Your task to perform on an android device: turn on showing notifications on the lock screen Image 0: 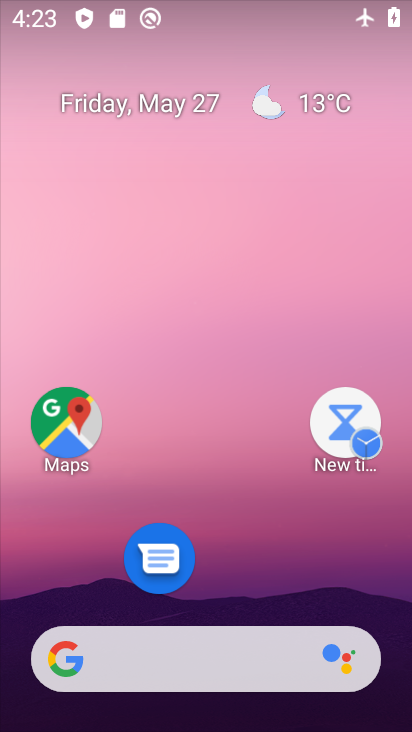
Step 0: drag from (285, 671) to (183, 167)
Your task to perform on an android device: turn on showing notifications on the lock screen Image 1: 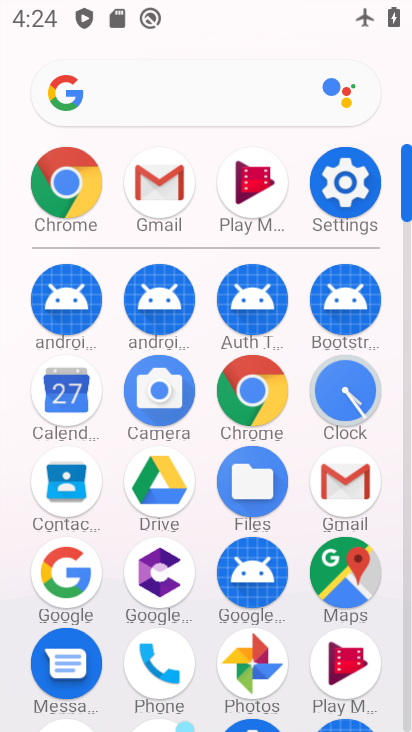
Step 1: click (364, 246)
Your task to perform on an android device: turn on showing notifications on the lock screen Image 2: 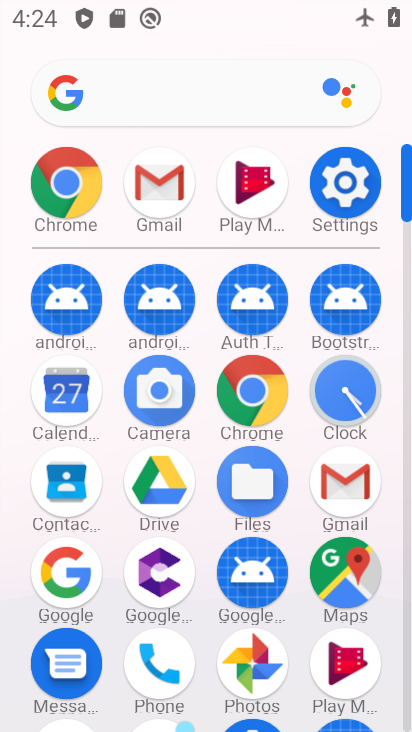
Step 2: click (344, 186)
Your task to perform on an android device: turn on showing notifications on the lock screen Image 3: 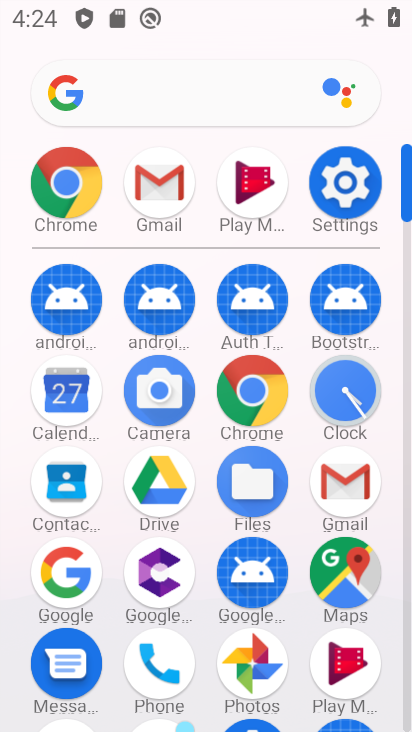
Step 3: click (344, 188)
Your task to perform on an android device: turn on showing notifications on the lock screen Image 4: 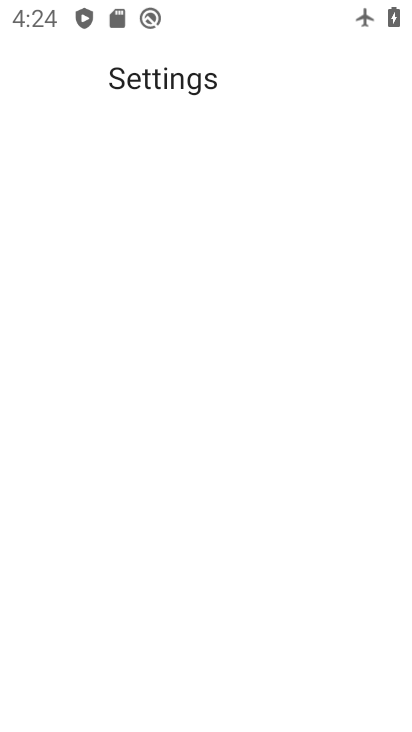
Step 4: click (347, 188)
Your task to perform on an android device: turn on showing notifications on the lock screen Image 5: 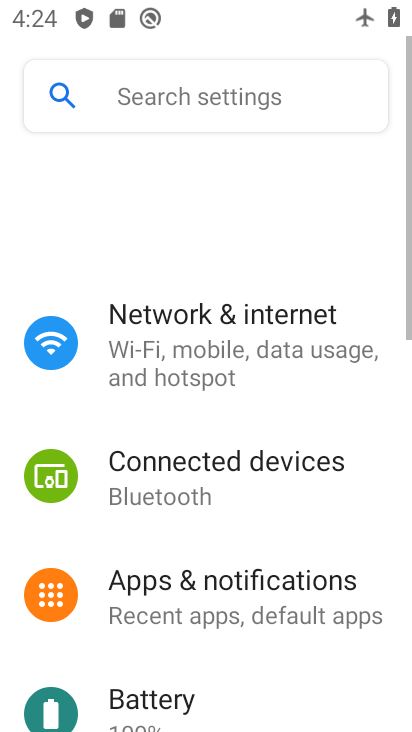
Step 5: click (347, 198)
Your task to perform on an android device: turn on showing notifications on the lock screen Image 6: 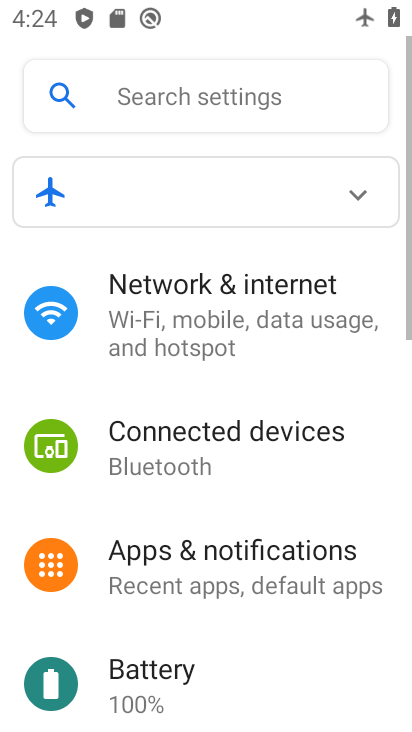
Step 6: click (348, 196)
Your task to perform on an android device: turn on showing notifications on the lock screen Image 7: 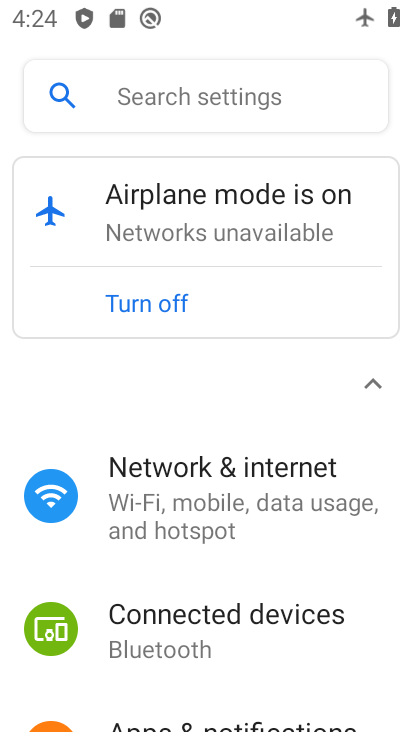
Step 7: drag from (175, 589) to (157, 264)
Your task to perform on an android device: turn on showing notifications on the lock screen Image 8: 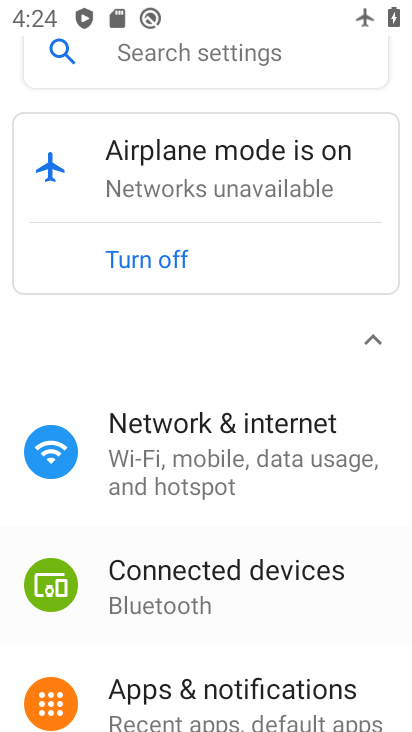
Step 8: drag from (249, 550) to (209, 270)
Your task to perform on an android device: turn on showing notifications on the lock screen Image 9: 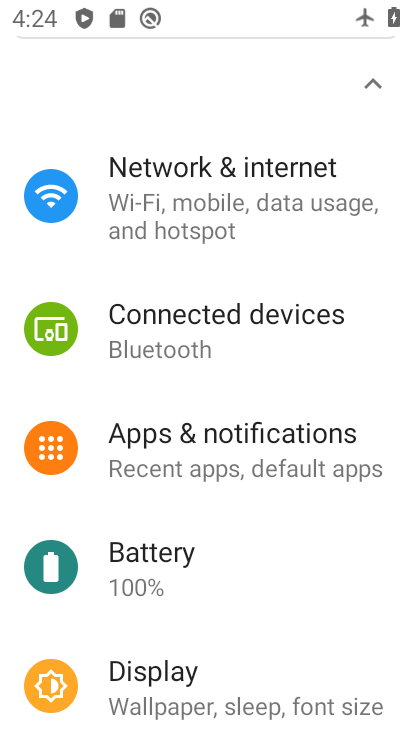
Step 9: click (189, 453)
Your task to perform on an android device: turn on showing notifications on the lock screen Image 10: 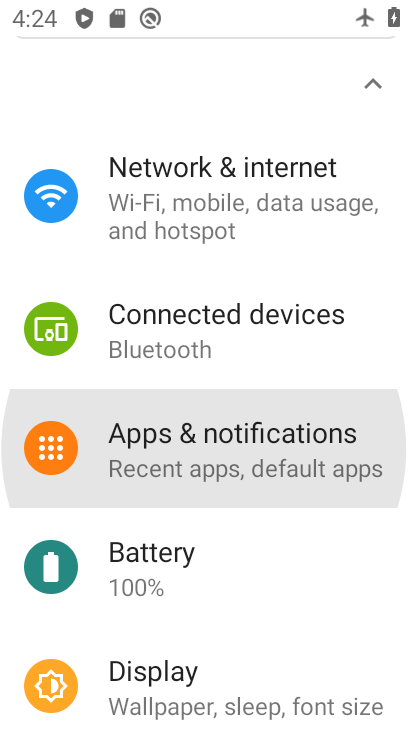
Step 10: click (189, 453)
Your task to perform on an android device: turn on showing notifications on the lock screen Image 11: 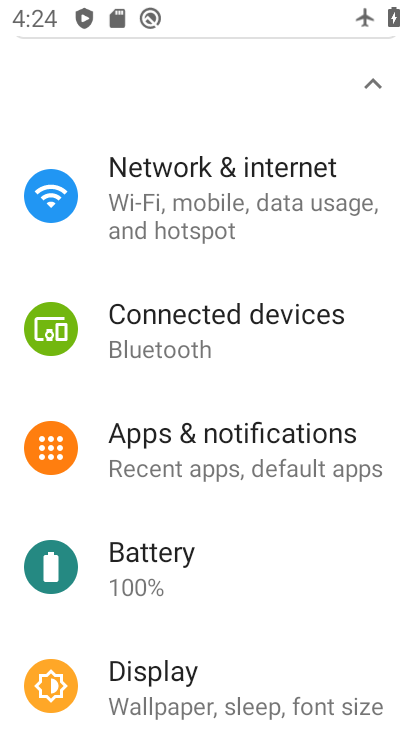
Step 11: click (192, 450)
Your task to perform on an android device: turn on showing notifications on the lock screen Image 12: 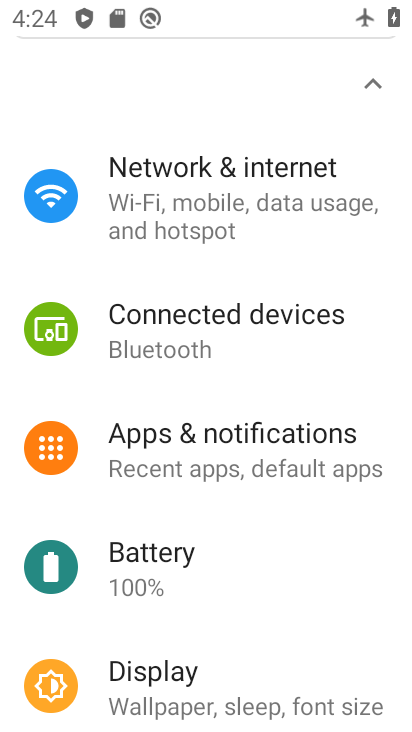
Step 12: click (195, 453)
Your task to perform on an android device: turn on showing notifications on the lock screen Image 13: 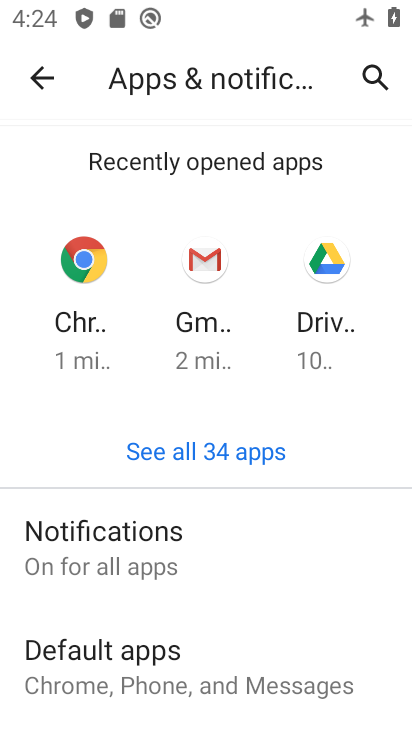
Step 13: click (99, 550)
Your task to perform on an android device: turn on showing notifications on the lock screen Image 14: 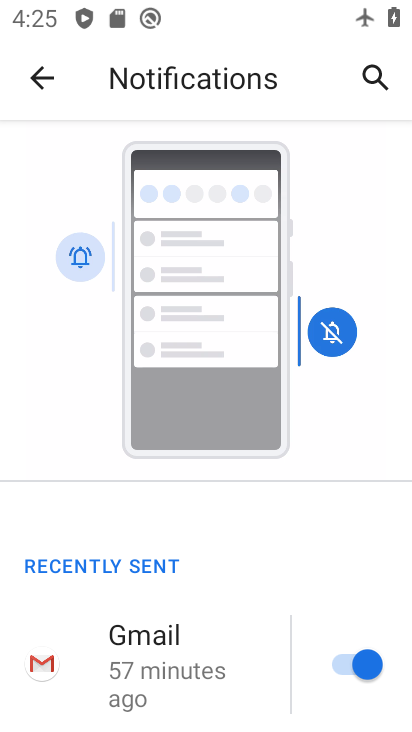
Step 14: drag from (226, 576) to (207, 391)
Your task to perform on an android device: turn on showing notifications on the lock screen Image 15: 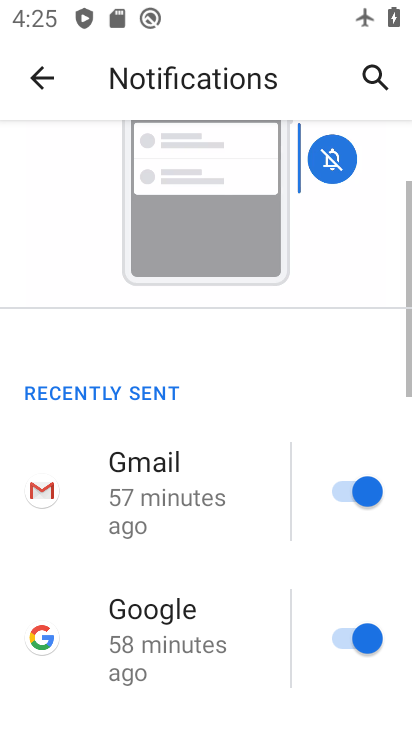
Step 15: drag from (238, 513) to (162, 320)
Your task to perform on an android device: turn on showing notifications on the lock screen Image 16: 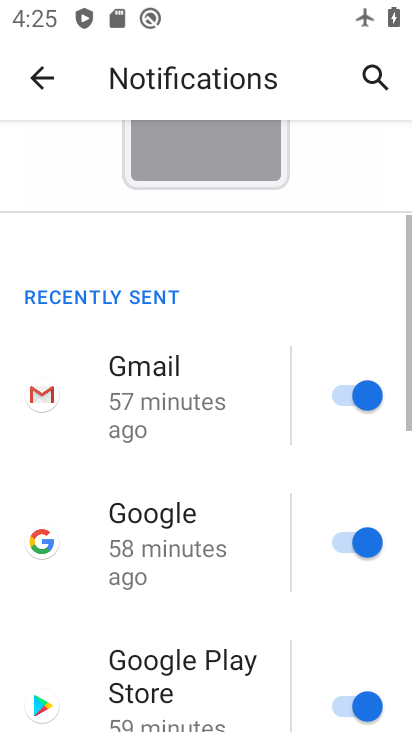
Step 16: drag from (242, 595) to (189, 446)
Your task to perform on an android device: turn on showing notifications on the lock screen Image 17: 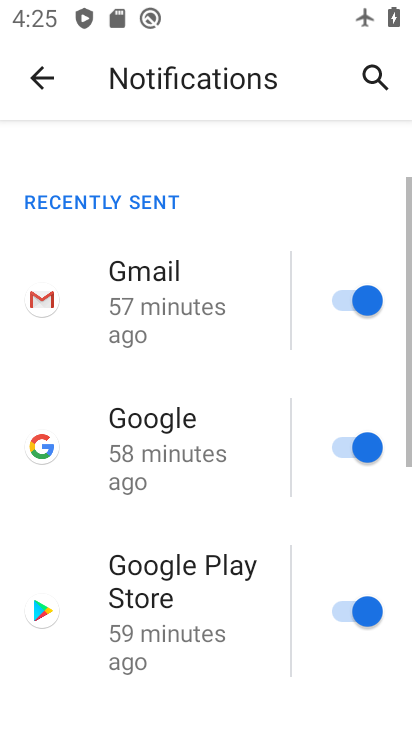
Step 17: drag from (166, 412) to (149, 357)
Your task to perform on an android device: turn on showing notifications on the lock screen Image 18: 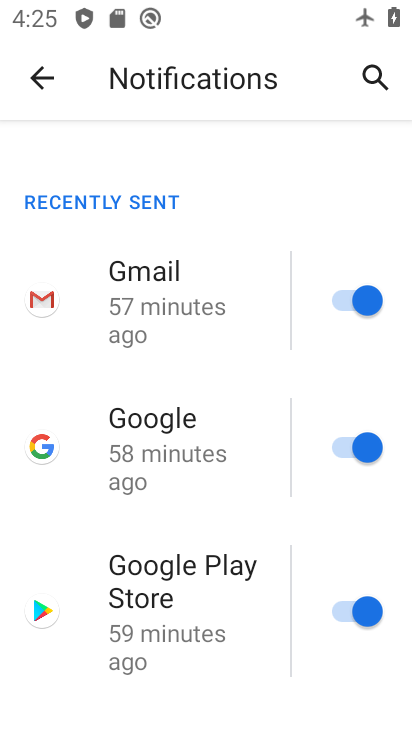
Step 18: drag from (152, 485) to (262, 130)
Your task to perform on an android device: turn on showing notifications on the lock screen Image 19: 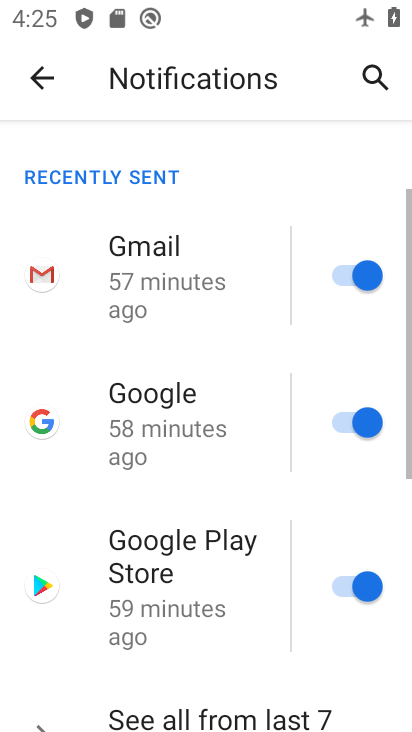
Step 19: drag from (212, 560) to (218, 162)
Your task to perform on an android device: turn on showing notifications on the lock screen Image 20: 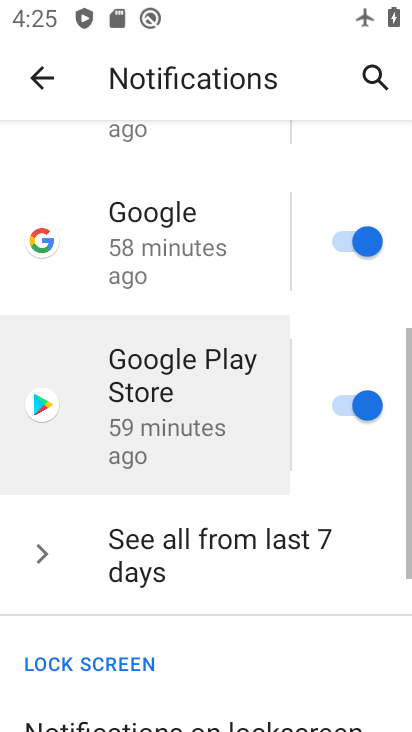
Step 20: drag from (116, 476) to (146, 225)
Your task to perform on an android device: turn on showing notifications on the lock screen Image 21: 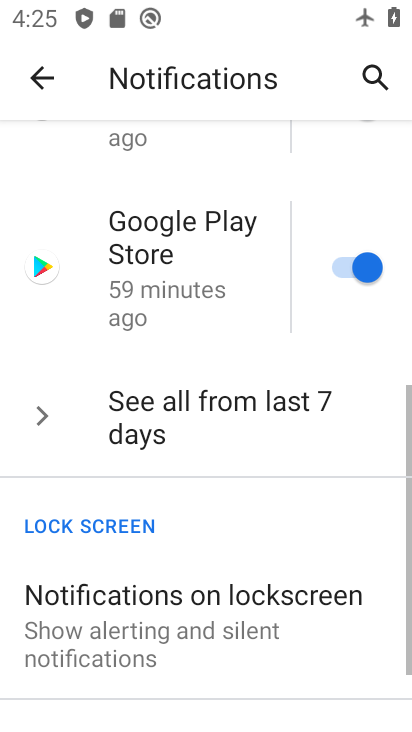
Step 21: drag from (172, 496) to (211, 224)
Your task to perform on an android device: turn on showing notifications on the lock screen Image 22: 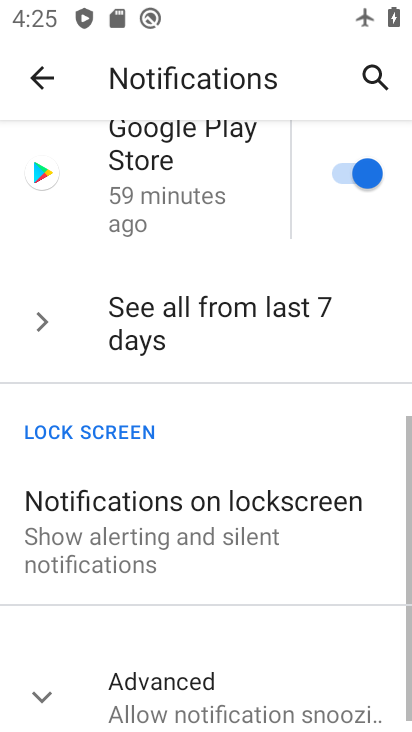
Step 22: drag from (223, 538) to (236, 191)
Your task to perform on an android device: turn on showing notifications on the lock screen Image 23: 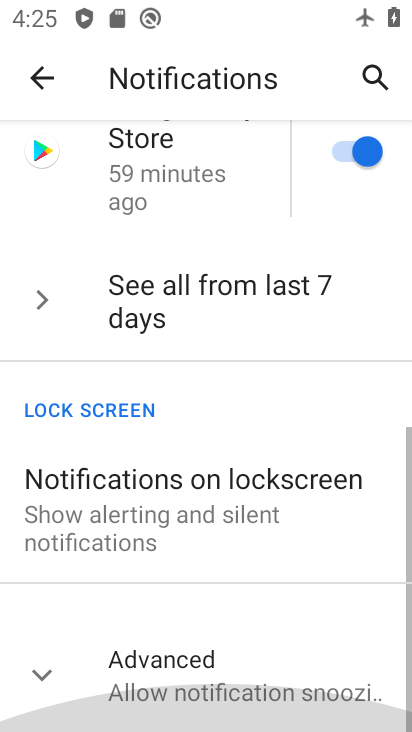
Step 23: drag from (219, 551) to (170, 187)
Your task to perform on an android device: turn on showing notifications on the lock screen Image 24: 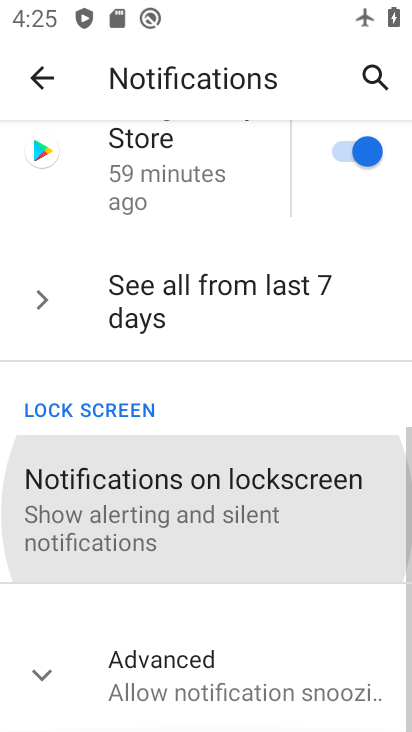
Step 24: drag from (144, 415) to (144, 85)
Your task to perform on an android device: turn on showing notifications on the lock screen Image 25: 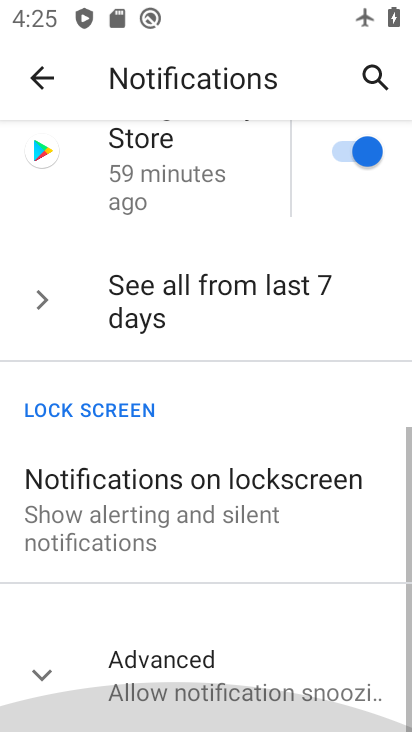
Step 25: drag from (179, 574) to (177, 200)
Your task to perform on an android device: turn on showing notifications on the lock screen Image 26: 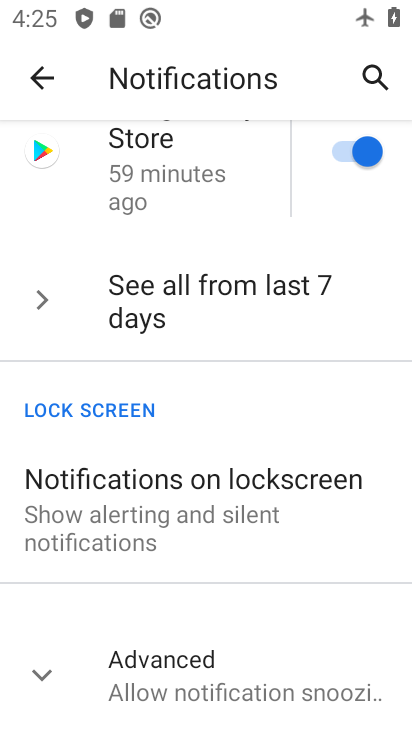
Step 26: drag from (220, 399) to (220, 290)
Your task to perform on an android device: turn on showing notifications on the lock screen Image 27: 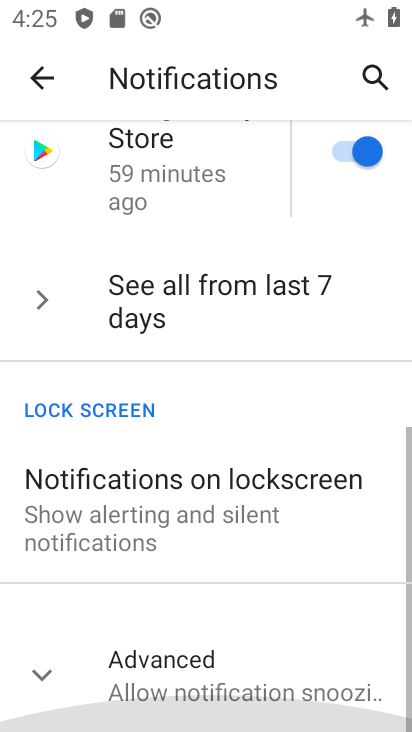
Step 27: drag from (270, 548) to (247, 343)
Your task to perform on an android device: turn on showing notifications on the lock screen Image 28: 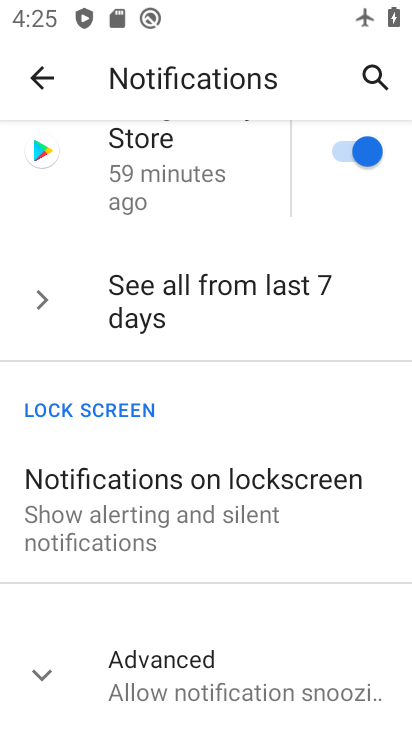
Step 28: click (170, 672)
Your task to perform on an android device: turn on showing notifications on the lock screen Image 29: 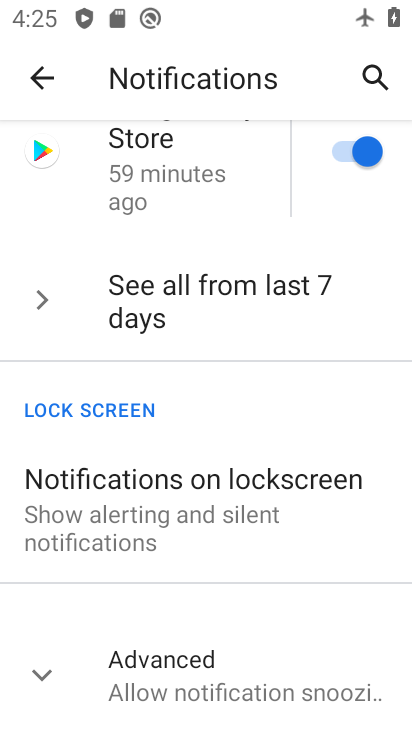
Step 29: click (170, 672)
Your task to perform on an android device: turn on showing notifications on the lock screen Image 30: 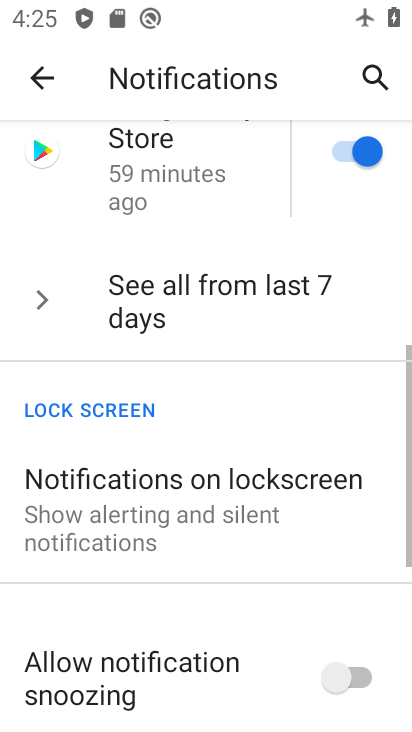
Step 30: click (170, 672)
Your task to perform on an android device: turn on showing notifications on the lock screen Image 31: 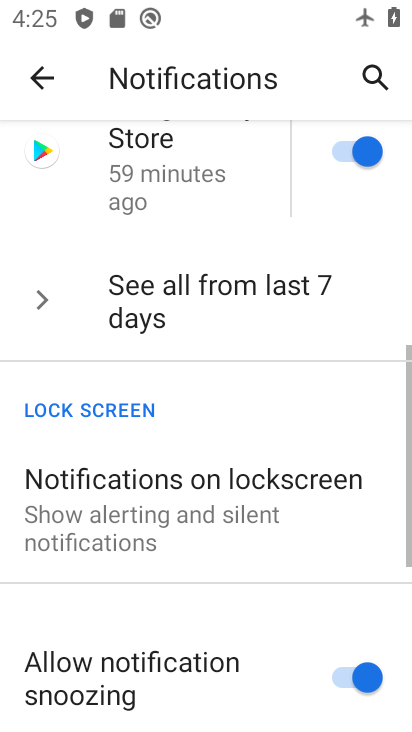
Step 31: drag from (272, 585) to (231, 357)
Your task to perform on an android device: turn on showing notifications on the lock screen Image 32: 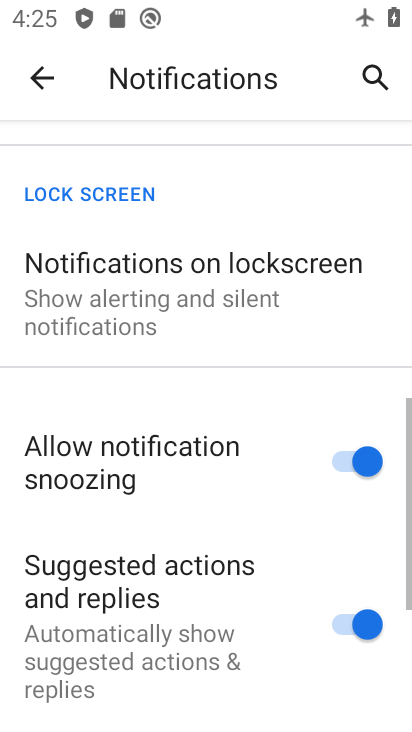
Step 32: click (219, 312)
Your task to perform on an android device: turn on showing notifications on the lock screen Image 33: 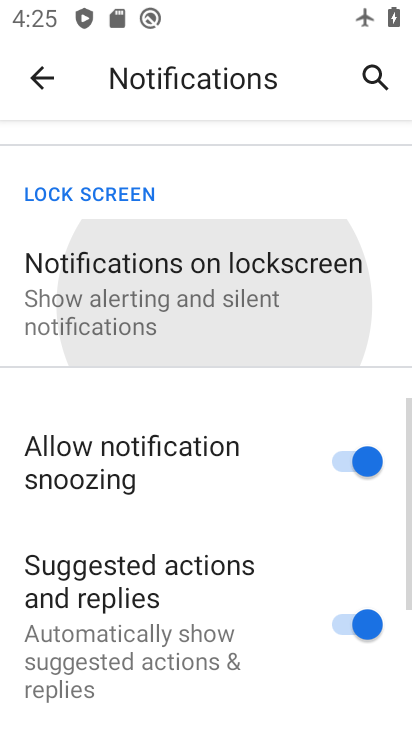
Step 33: drag from (255, 522) to (262, 285)
Your task to perform on an android device: turn on showing notifications on the lock screen Image 34: 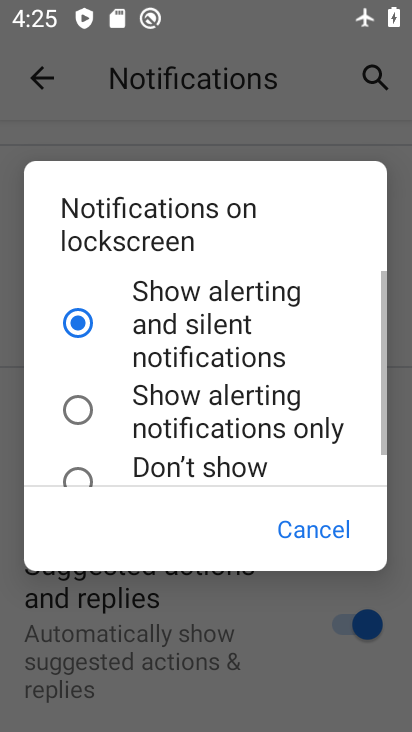
Step 34: drag from (263, 594) to (263, 305)
Your task to perform on an android device: turn on showing notifications on the lock screen Image 35: 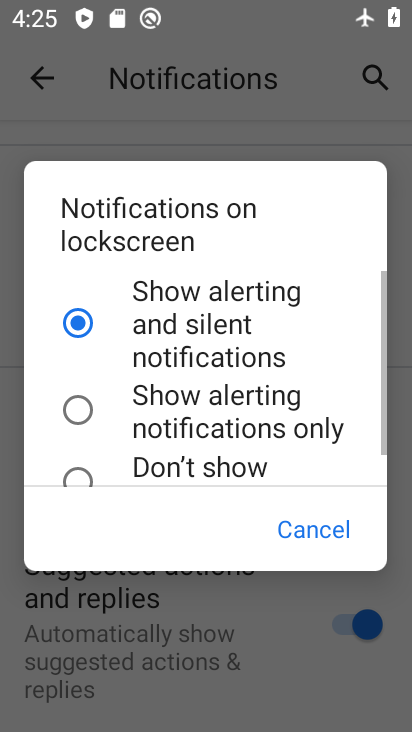
Step 35: drag from (282, 557) to (294, 279)
Your task to perform on an android device: turn on showing notifications on the lock screen Image 36: 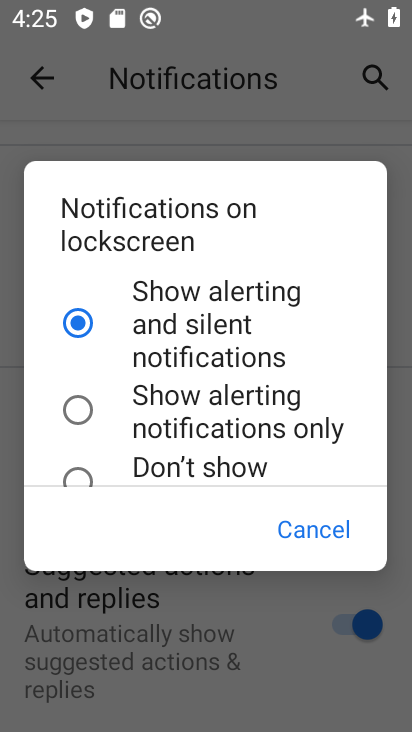
Step 36: click (306, 521)
Your task to perform on an android device: turn on showing notifications on the lock screen Image 37: 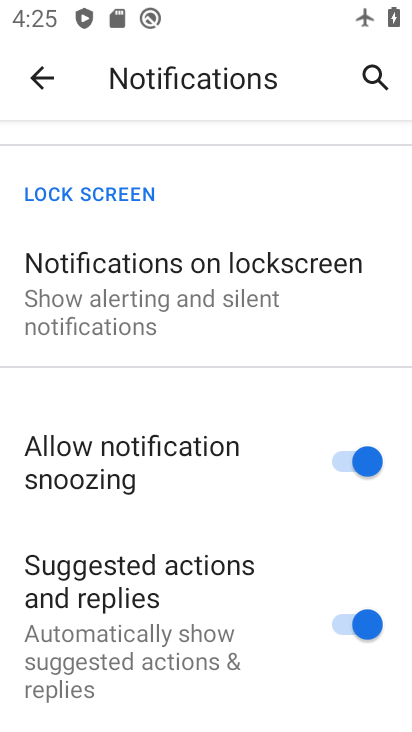
Step 37: click (296, 243)
Your task to perform on an android device: turn on showing notifications on the lock screen Image 38: 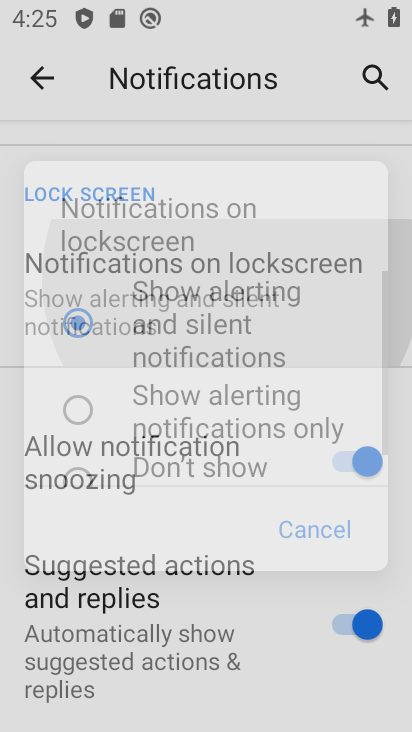
Step 38: drag from (248, 573) to (244, 349)
Your task to perform on an android device: turn on showing notifications on the lock screen Image 39: 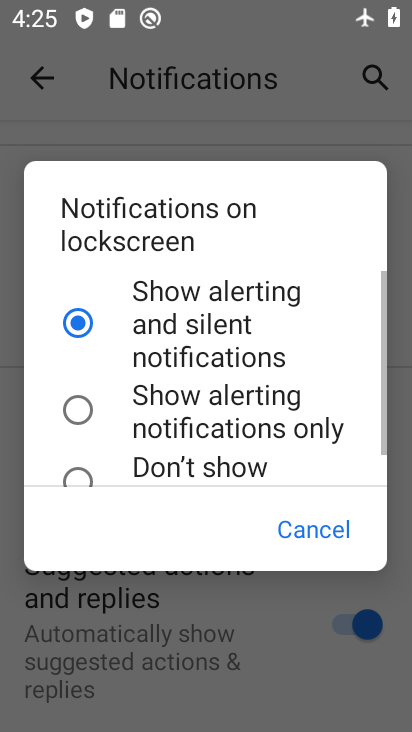
Step 39: drag from (253, 559) to (246, 351)
Your task to perform on an android device: turn on showing notifications on the lock screen Image 40: 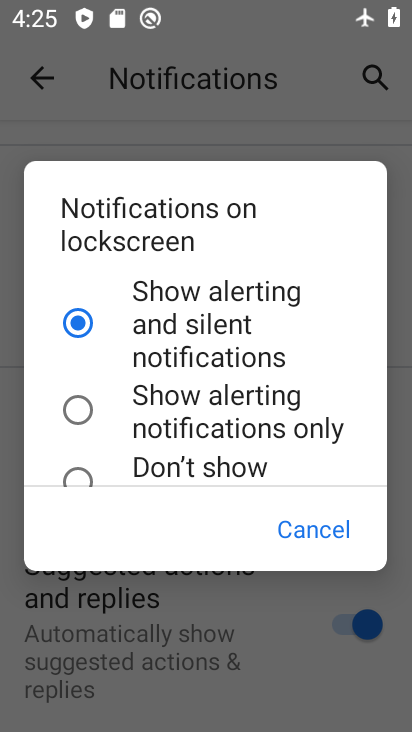
Step 40: click (312, 527)
Your task to perform on an android device: turn on showing notifications on the lock screen Image 41: 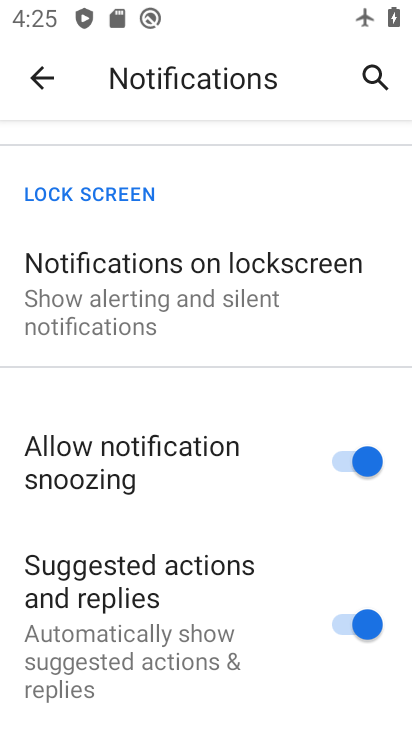
Step 41: drag from (257, 399) to (248, 279)
Your task to perform on an android device: turn on showing notifications on the lock screen Image 42: 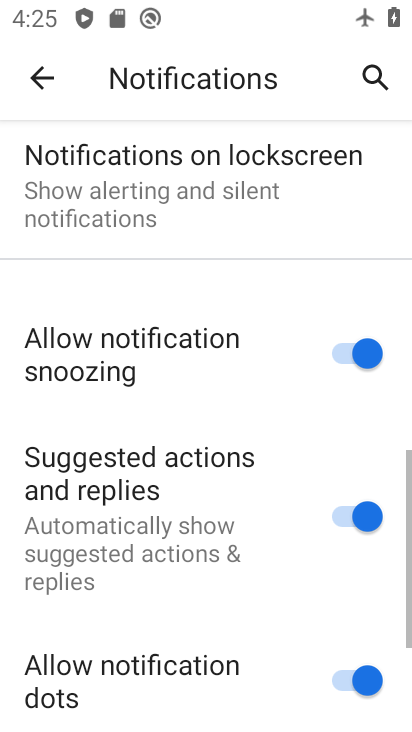
Step 42: drag from (242, 625) to (249, 296)
Your task to perform on an android device: turn on showing notifications on the lock screen Image 43: 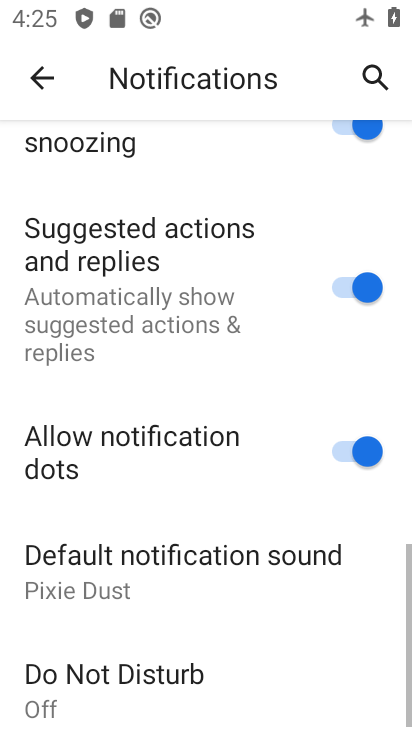
Step 43: drag from (271, 633) to (244, 386)
Your task to perform on an android device: turn on showing notifications on the lock screen Image 44: 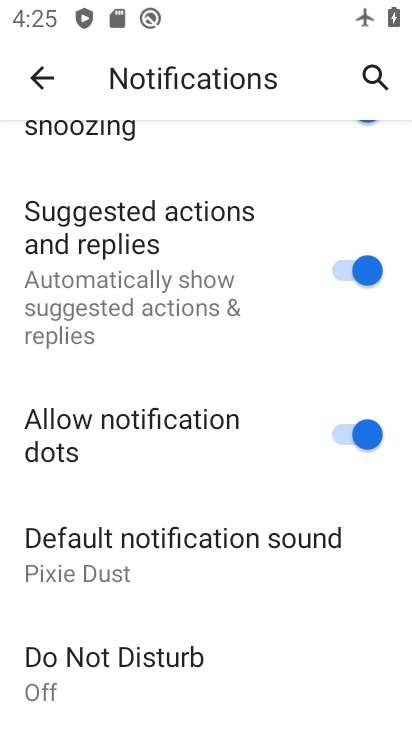
Step 44: drag from (224, 381) to (226, 680)
Your task to perform on an android device: turn on showing notifications on the lock screen Image 45: 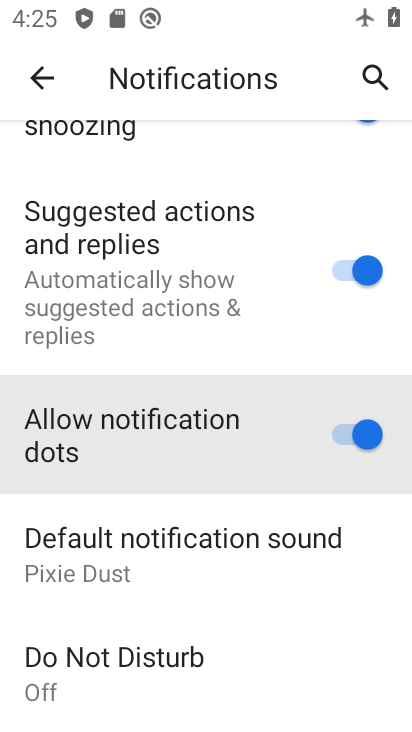
Step 45: drag from (191, 425) to (193, 717)
Your task to perform on an android device: turn on showing notifications on the lock screen Image 46: 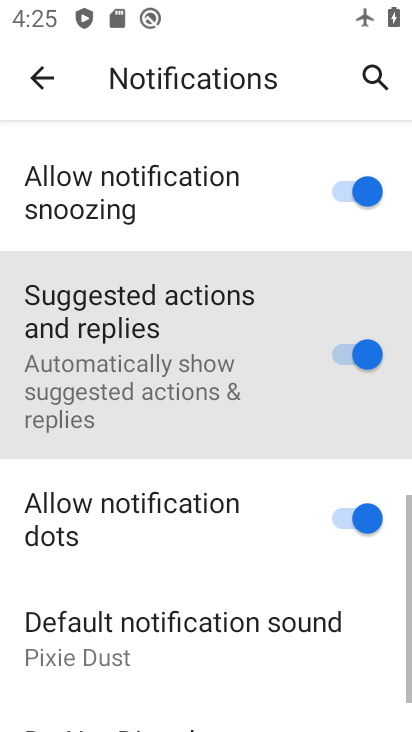
Step 46: drag from (193, 482) to (201, 590)
Your task to perform on an android device: turn on showing notifications on the lock screen Image 47: 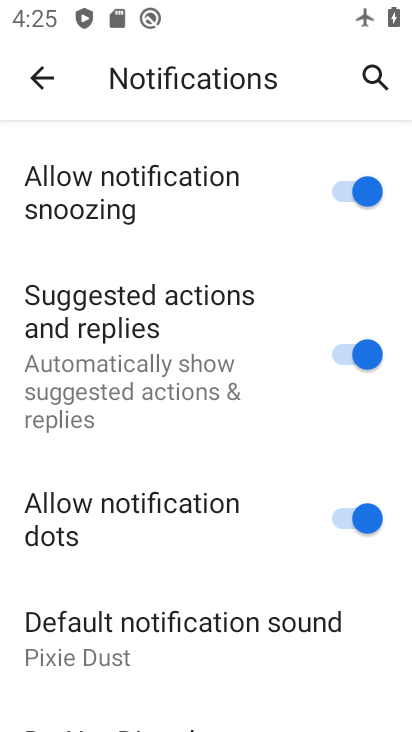
Step 47: click (268, 579)
Your task to perform on an android device: turn on showing notifications on the lock screen Image 48: 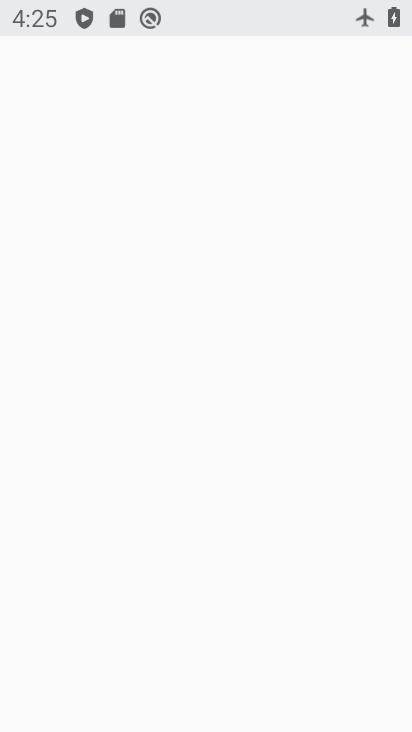
Step 48: task complete